Your task to perform on an android device: allow cookies in the chrome app Image 0: 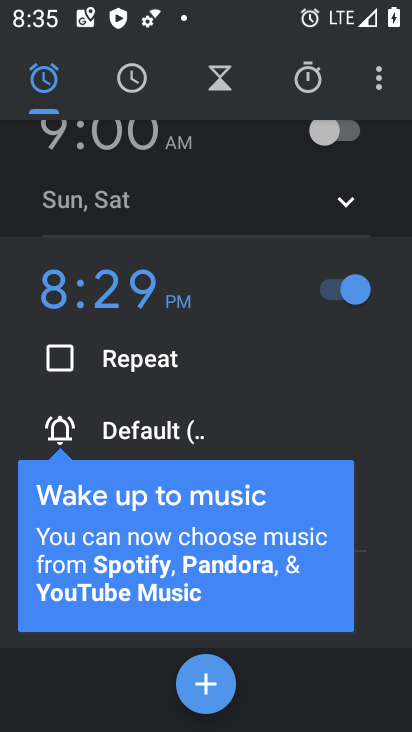
Step 0: press home button
Your task to perform on an android device: allow cookies in the chrome app Image 1: 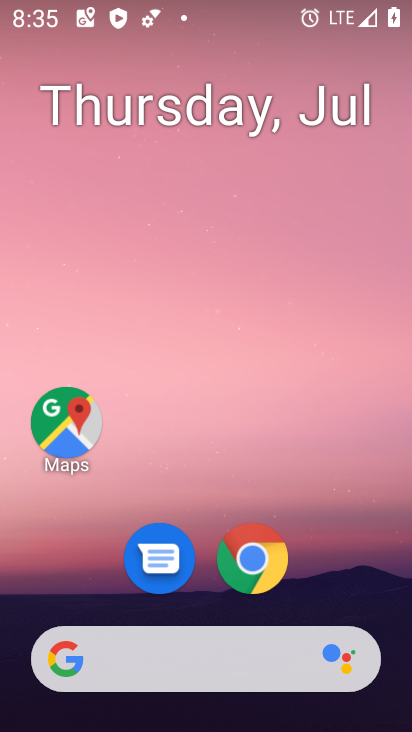
Step 1: drag from (242, 663) to (227, 125)
Your task to perform on an android device: allow cookies in the chrome app Image 2: 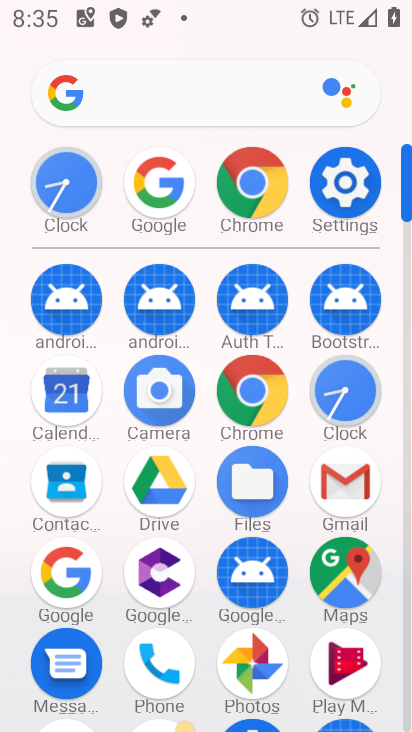
Step 2: click (265, 192)
Your task to perform on an android device: allow cookies in the chrome app Image 3: 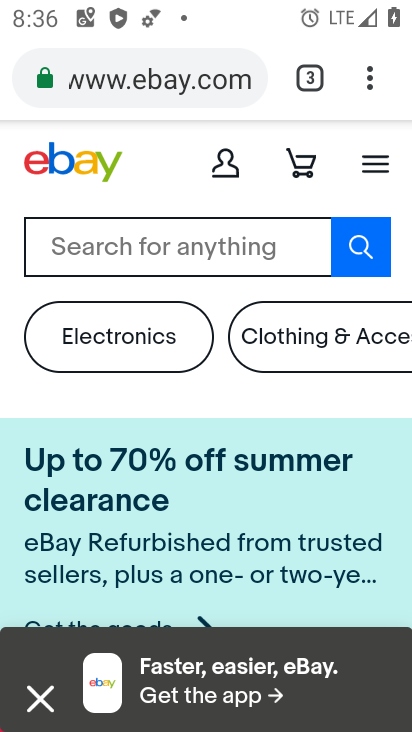
Step 3: click (359, 75)
Your task to perform on an android device: allow cookies in the chrome app Image 4: 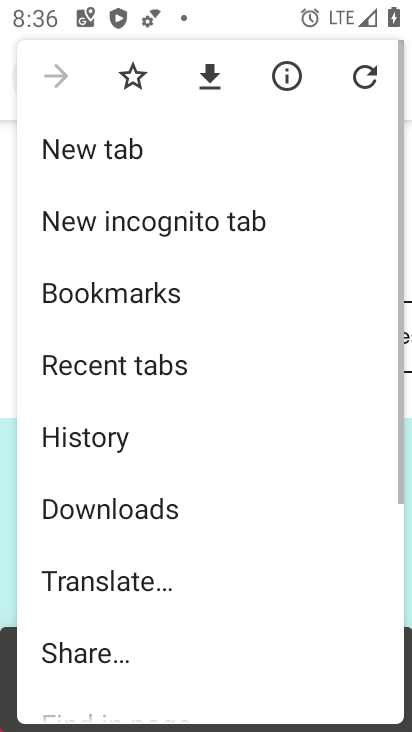
Step 4: drag from (221, 572) to (248, 126)
Your task to perform on an android device: allow cookies in the chrome app Image 5: 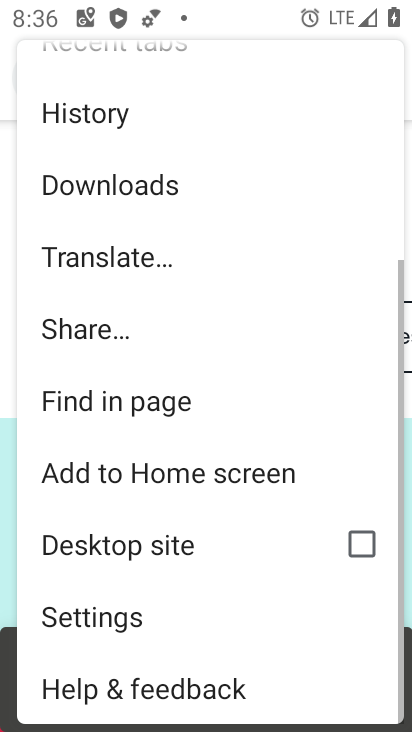
Step 5: click (116, 618)
Your task to perform on an android device: allow cookies in the chrome app Image 6: 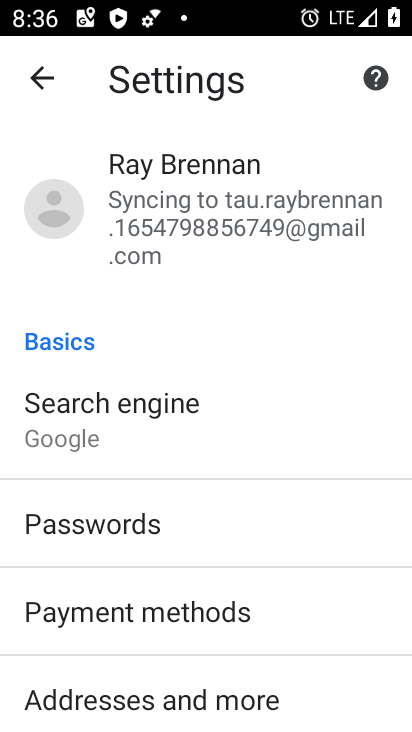
Step 6: drag from (187, 559) to (219, 237)
Your task to perform on an android device: allow cookies in the chrome app Image 7: 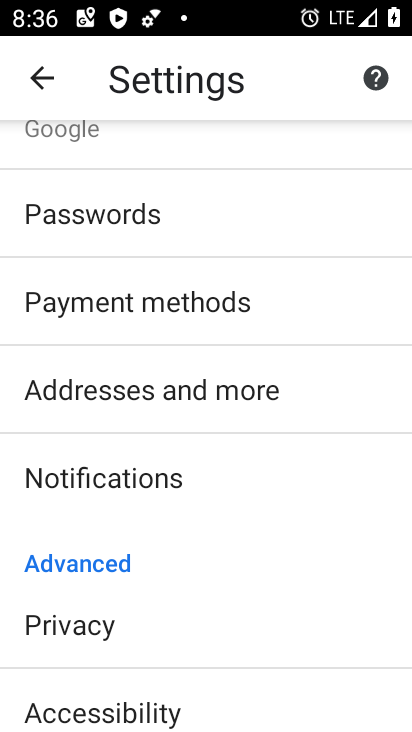
Step 7: drag from (127, 598) to (197, 221)
Your task to perform on an android device: allow cookies in the chrome app Image 8: 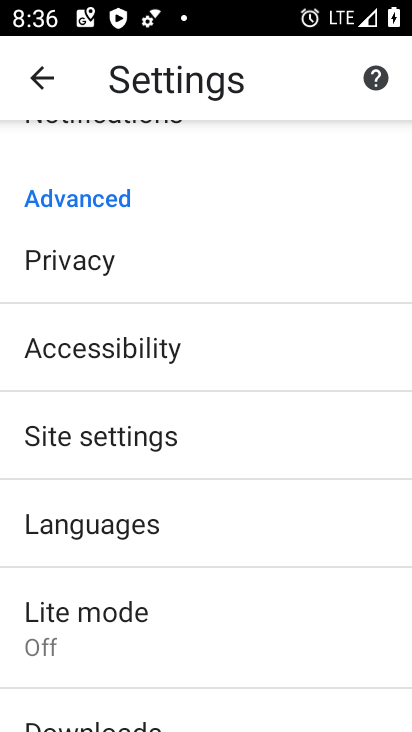
Step 8: click (125, 445)
Your task to perform on an android device: allow cookies in the chrome app Image 9: 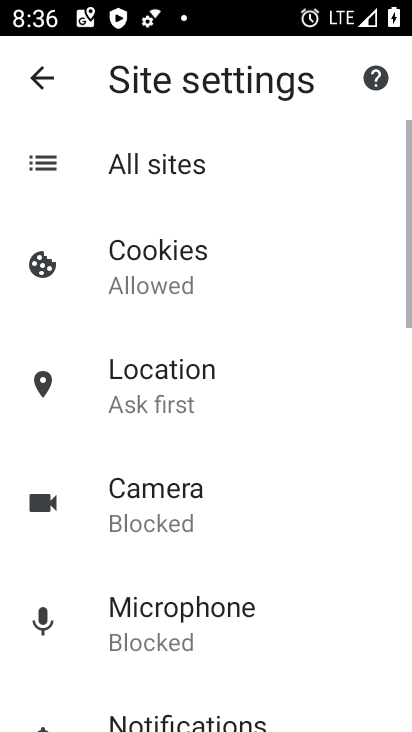
Step 9: click (173, 286)
Your task to perform on an android device: allow cookies in the chrome app Image 10: 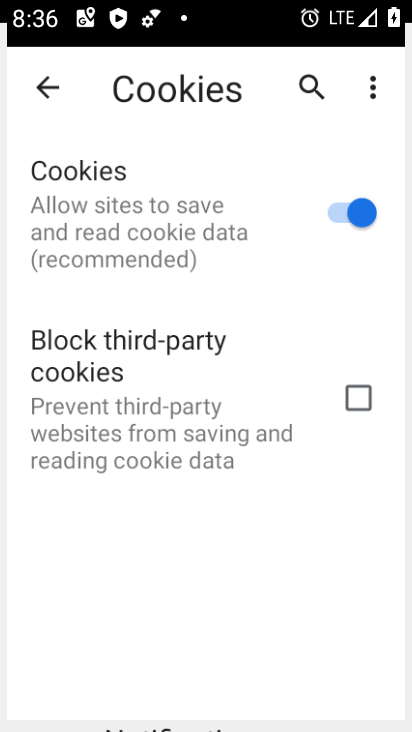
Step 10: task complete